Your task to perform on an android device: open app "Walmart Shopping & Grocery" (install if not already installed) Image 0: 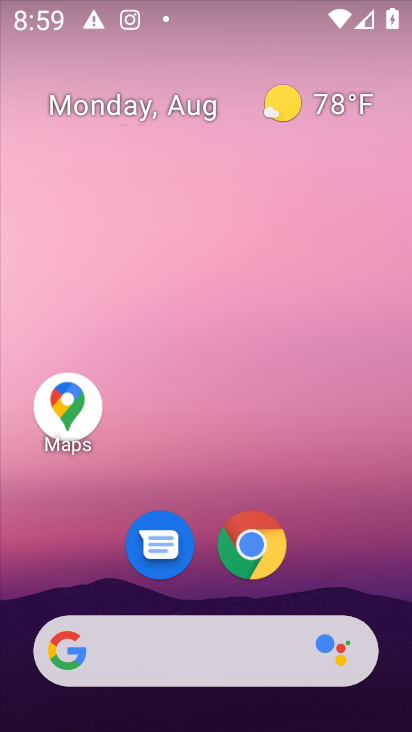
Step 0: press home button
Your task to perform on an android device: open app "Walmart Shopping & Grocery" (install if not already installed) Image 1: 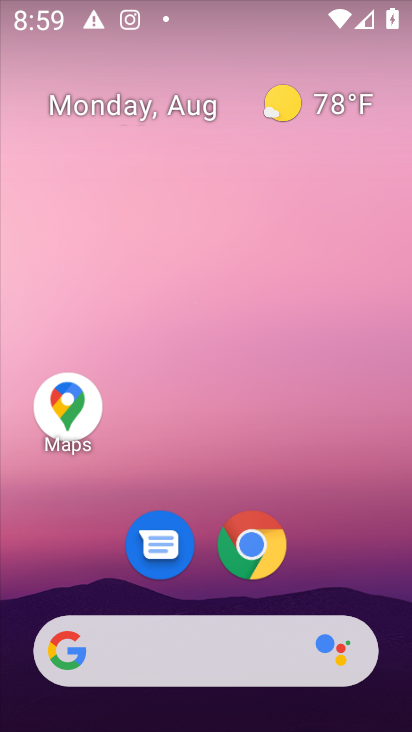
Step 1: drag from (361, 581) to (370, 92)
Your task to perform on an android device: open app "Walmart Shopping & Grocery" (install if not already installed) Image 2: 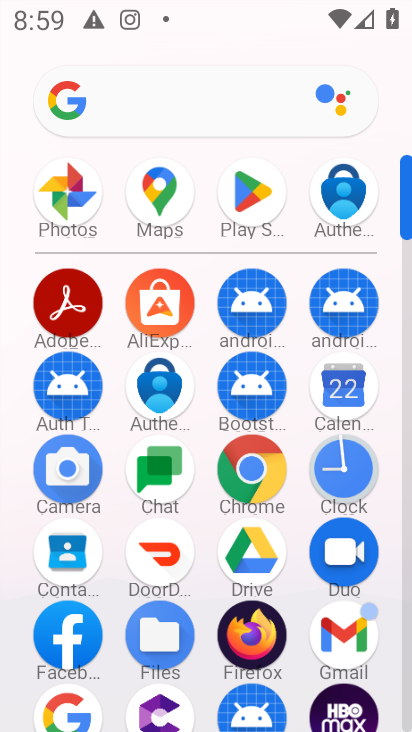
Step 2: click (246, 187)
Your task to perform on an android device: open app "Walmart Shopping & Grocery" (install if not already installed) Image 3: 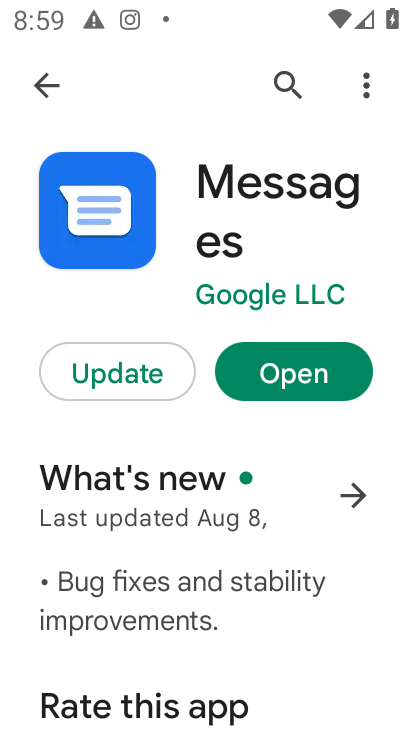
Step 3: press back button
Your task to perform on an android device: open app "Walmart Shopping & Grocery" (install if not already installed) Image 4: 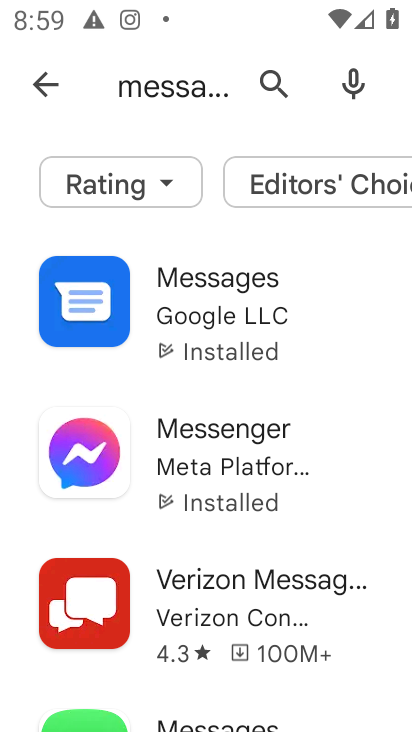
Step 4: press back button
Your task to perform on an android device: open app "Walmart Shopping & Grocery" (install if not already installed) Image 5: 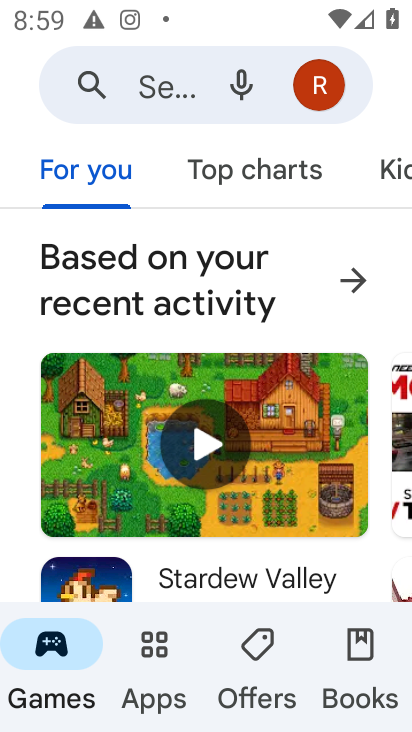
Step 5: click (131, 83)
Your task to perform on an android device: open app "Walmart Shopping & Grocery" (install if not already installed) Image 6: 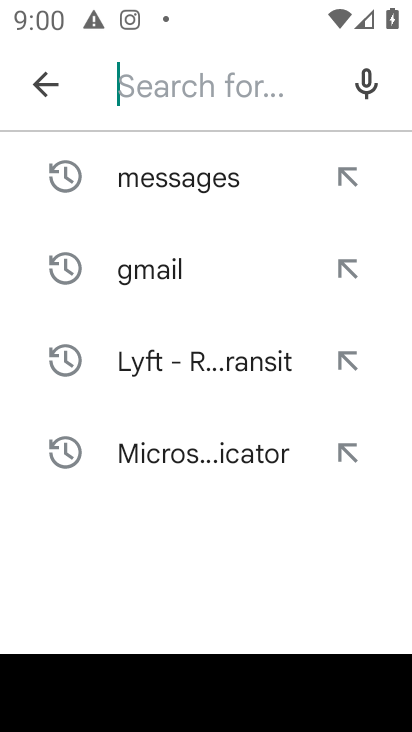
Step 6: type "Walmart Shopping & Grocery"
Your task to perform on an android device: open app "Walmart Shopping & Grocery" (install if not already installed) Image 7: 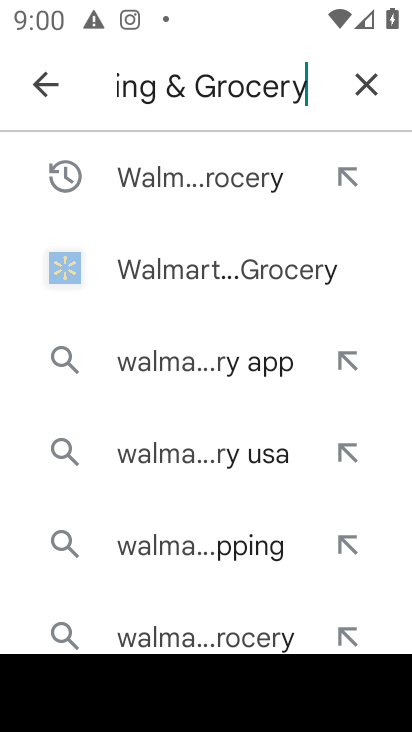
Step 7: press enter
Your task to perform on an android device: open app "Walmart Shopping & Grocery" (install if not already installed) Image 8: 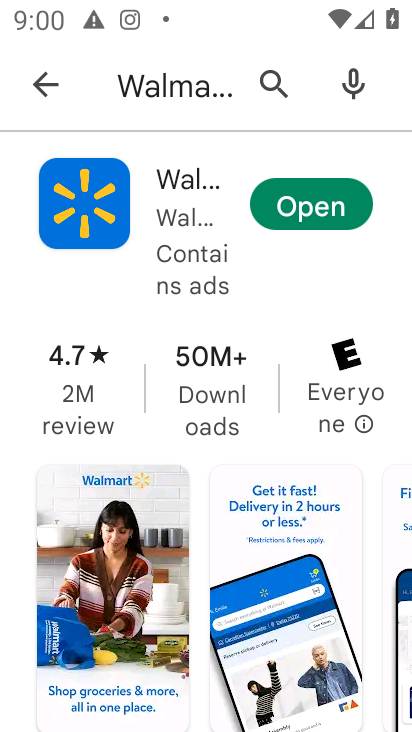
Step 8: click (312, 209)
Your task to perform on an android device: open app "Walmart Shopping & Grocery" (install if not already installed) Image 9: 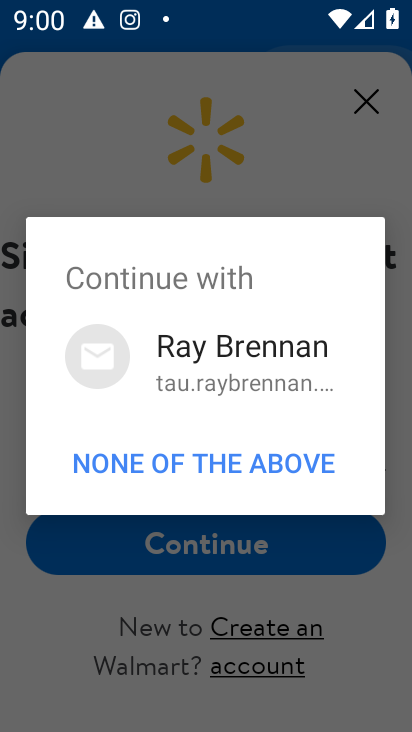
Step 9: task complete